Your task to perform on an android device: What's the weather today? Image 0: 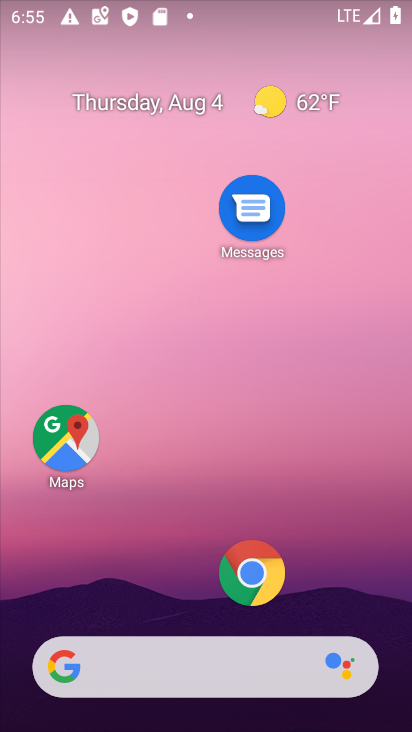
Step 0: press home button
Your task to perform on an android device: What's the weather today? Image 1: 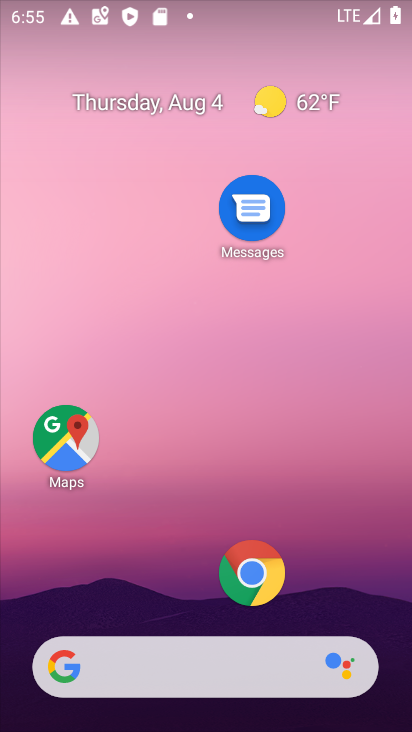
Step 1: click (63, 675)
Your task to perform on an android device: What's the weather today? Image 2: 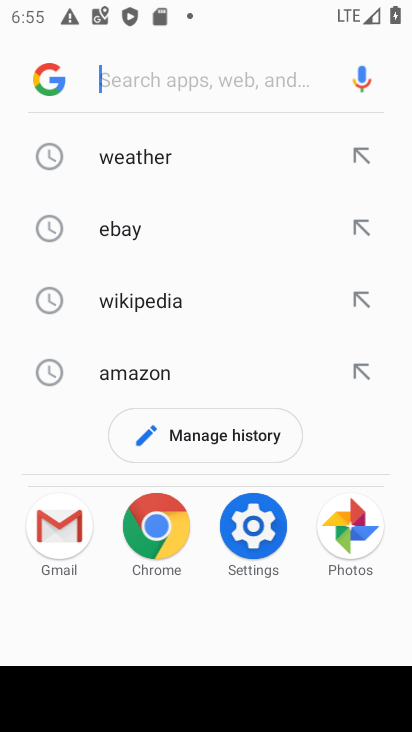
Step 2: type "weather today?"
Your task to perform on an android device: What's the weather today? Image 3: 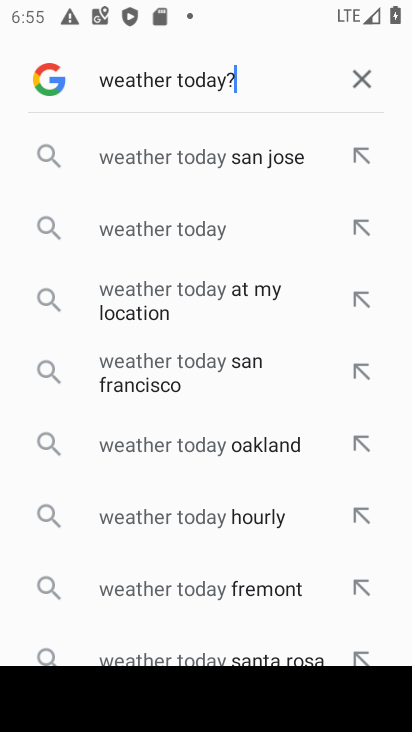
Step 3: press enter
Your task to perform on an android device: What's the weather today? Image 4: 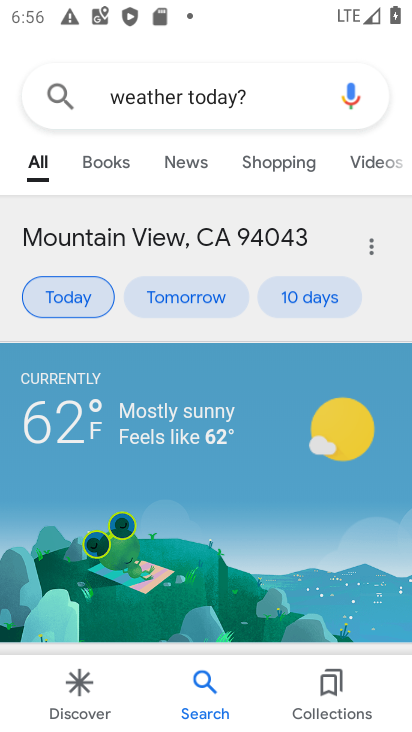
Step 4: task complete